Your task to perform on an android device: Open Yahoo.com Image 0: 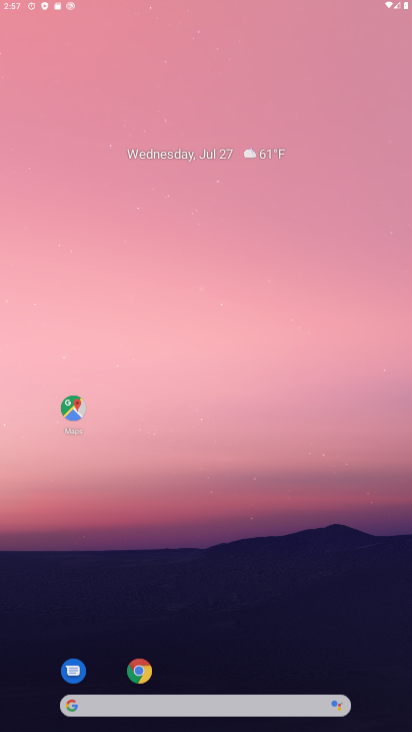
Step 0: click (168, 9)
Your task to perform on an android device: Open Yahoo.com Image 1: 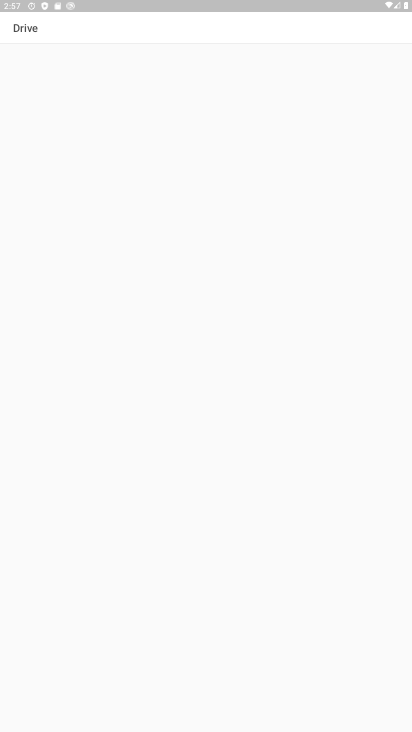
Step 1: press home button
Your task to perform on an android device: Open Yahoo.com Image 2: 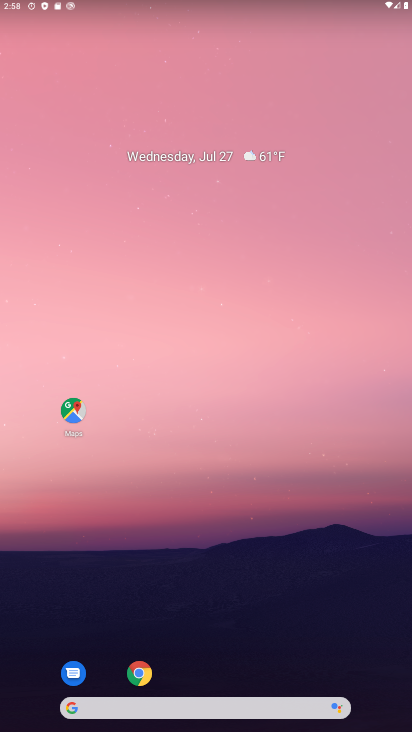
Step 2: click (112, 697)
Your task to perform on an android device: Open Yahoo.com Image 3: 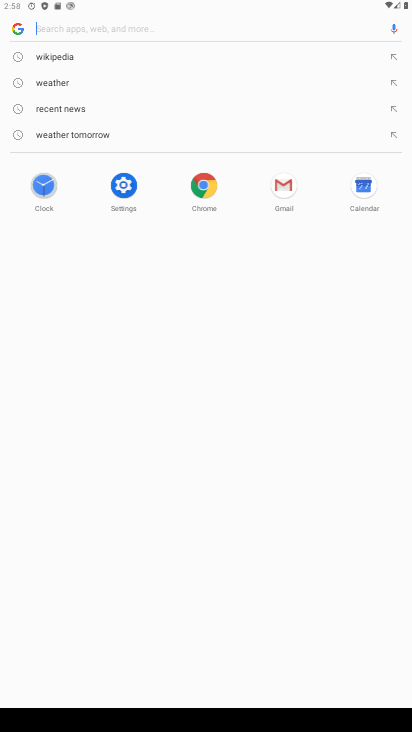
Step 3: type "Yahoo.com"
Your task to perform on an android device: Open Yahoo.com Image 4: 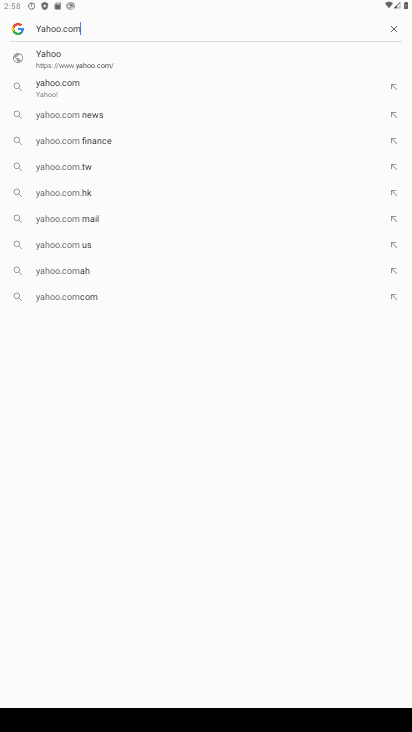
Step 4: click (51, 84)
Your task to perform on an android device: Open Yahoo.com Image 5: 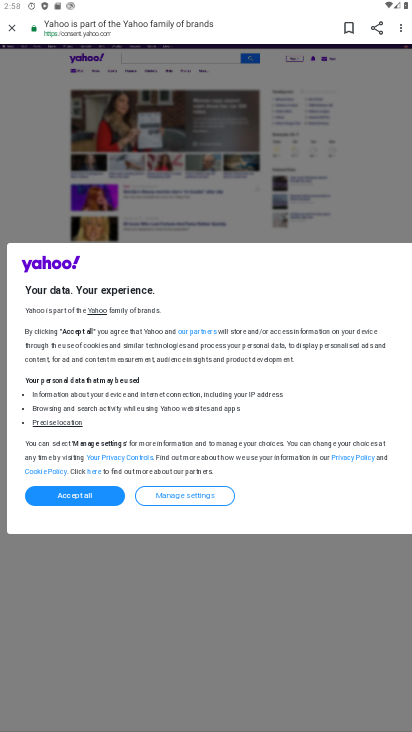
Step 5: task complete